Your task to perform on an android device: Search for pizza restaurants on Maps Image 0: 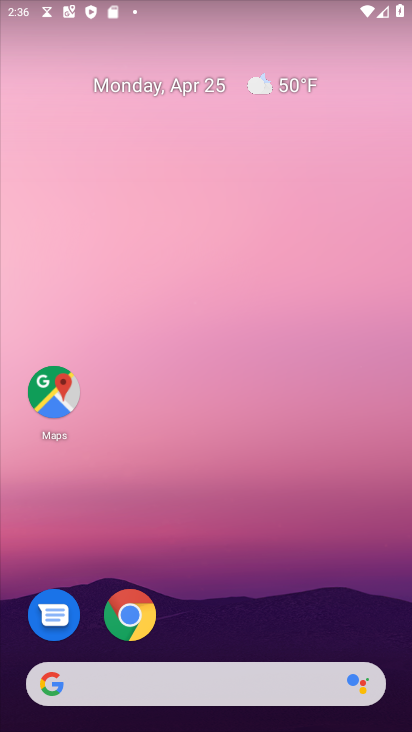
Step 0: drag from (216, 679) to (181, 148)
Your task to perform on an android device: Search for pizza restaurants on Maps Image 1: 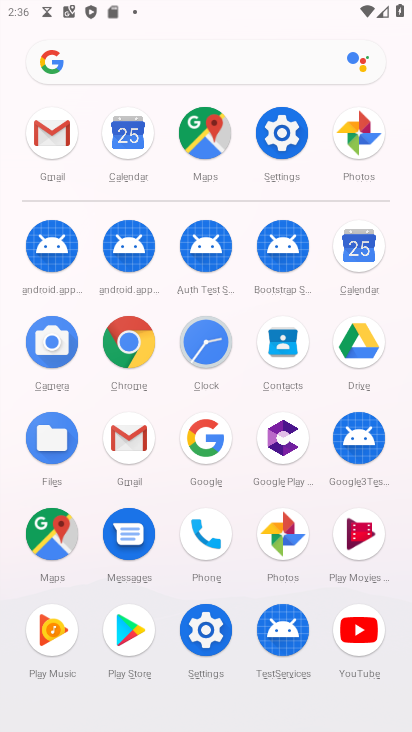
Step 1: click (49, 526)
Your task to perform on an android device: Search for pizza restaurants on Maps Image 2: 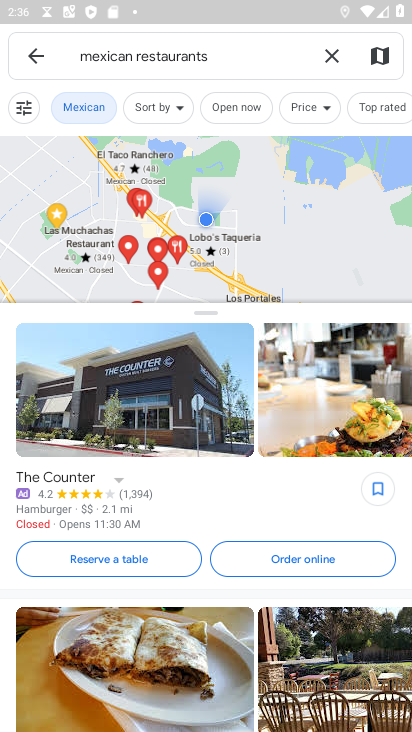
Step 2: click (334, 47)
Your task to perform on an android device: Search for pizza restaurants on Maps Image 3: 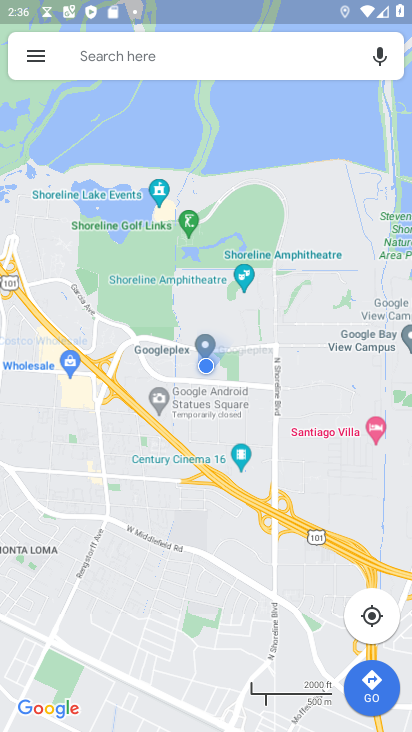
Step 3: click (141, 58)
Your task to perform on an android device: Search for pizza restaurants on Maps Image 4: 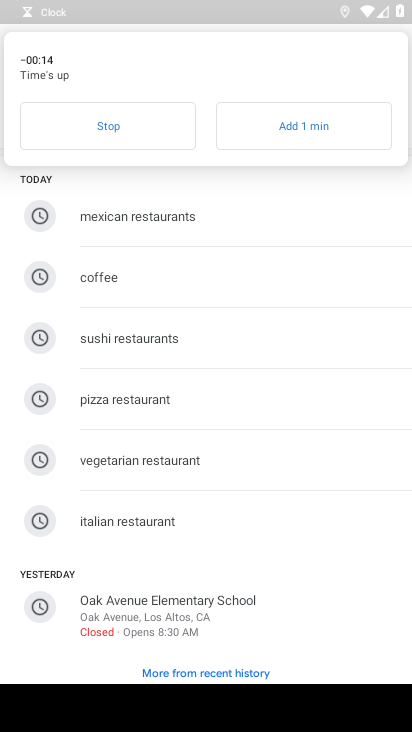
Step 4: type "Pizza restaurants"
Your task to perform on an android device: Search for pizza restaurants on Maps Image 5: 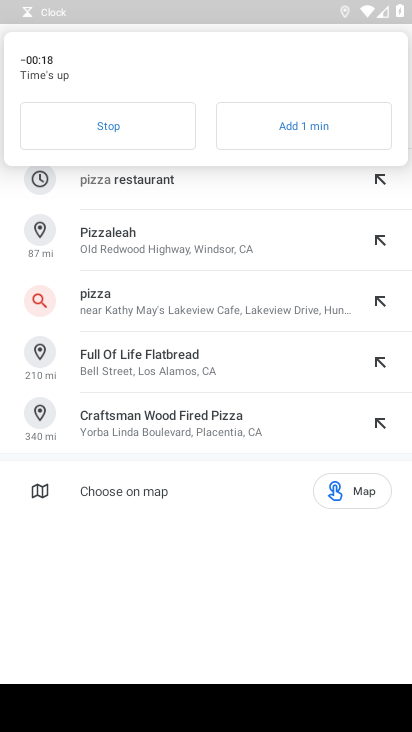
Step 5: click (138, 180)
Your task to perform on an android device: Search for pizza restaurants on Maps Image 6: 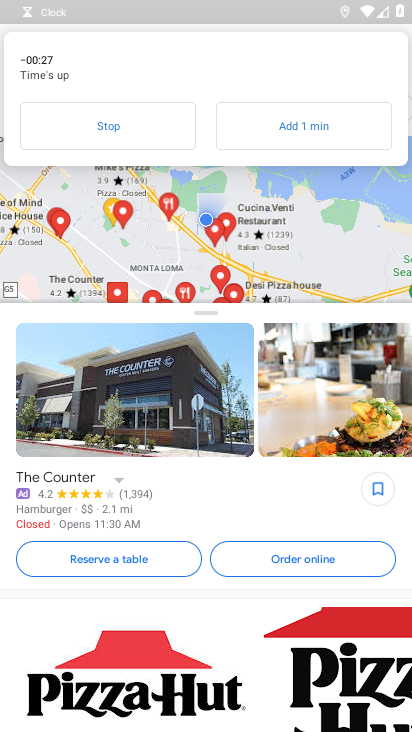
Step 6: task complete